Your task to perform on an android device: toggle wifi Image 0: 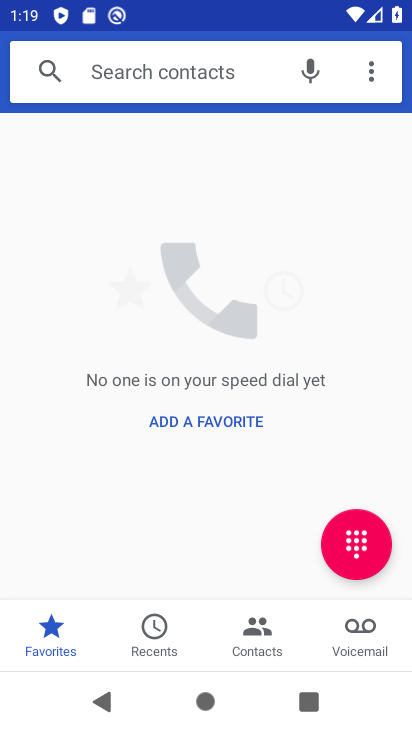
Step 0: press home button
Your task to perform on an android device: toggle wifi Image 1: 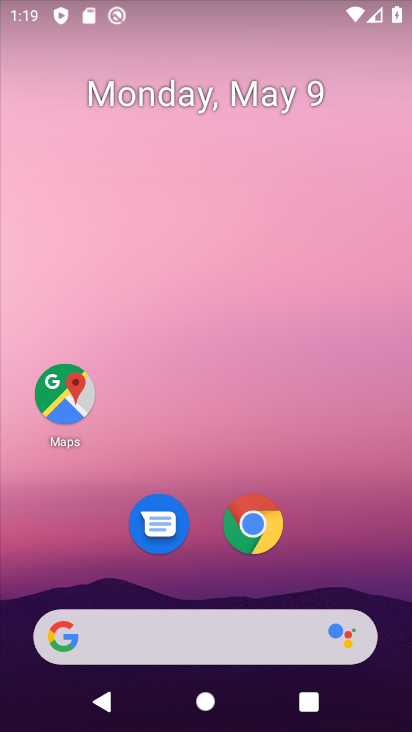
Step 1: drag from (213, 514) to (220, 61)
Your task to perform on an android device: toggle wifi Image 2: 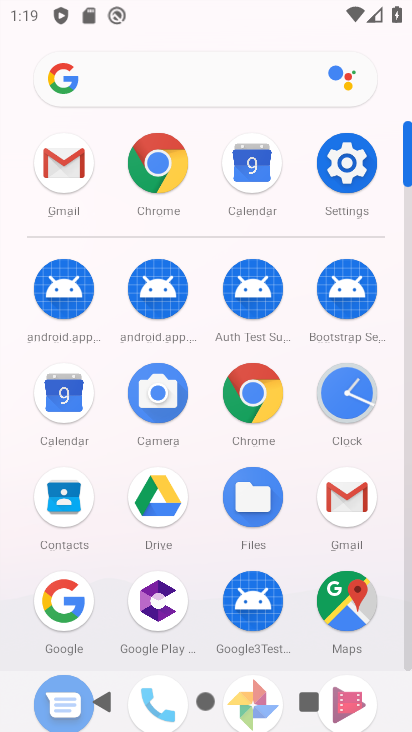
Step 2: click (316, 161)
Your task to perform on an android device: toggle wifi Image 3: 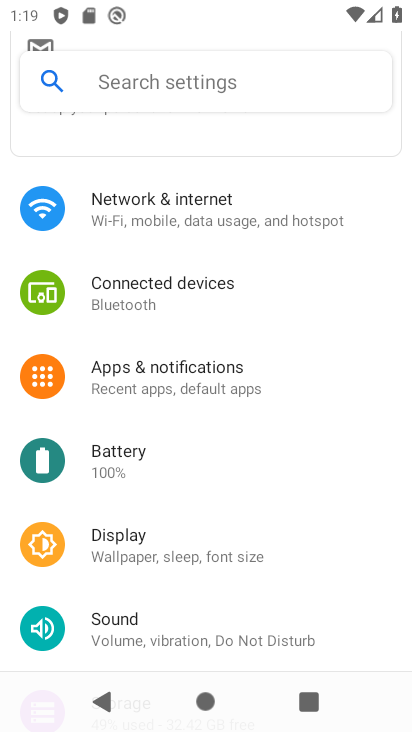
Step 3: click (221, 207)
Your task to perform on an android device: toggle wifi Image 4: 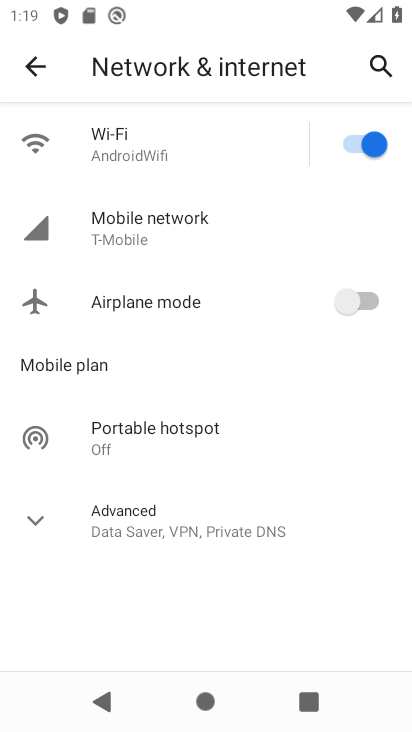
Step 4: click (349, 137)
Your task to perform on an android device: toggle wifi Image 5: 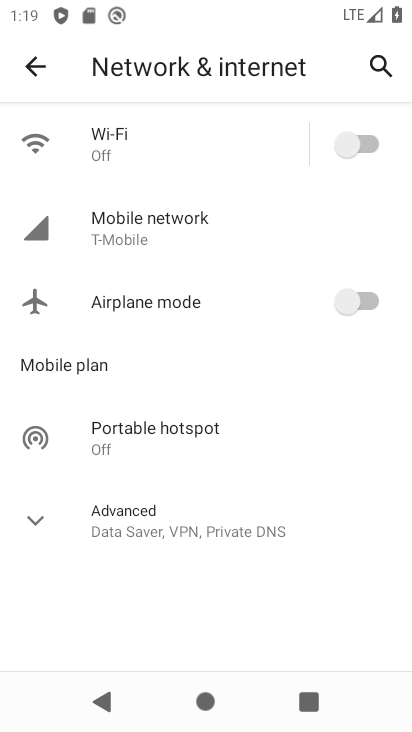
Step 5: task complete